Your task to perform on an android device: turn on notifications settings in the gmail app Image 0: 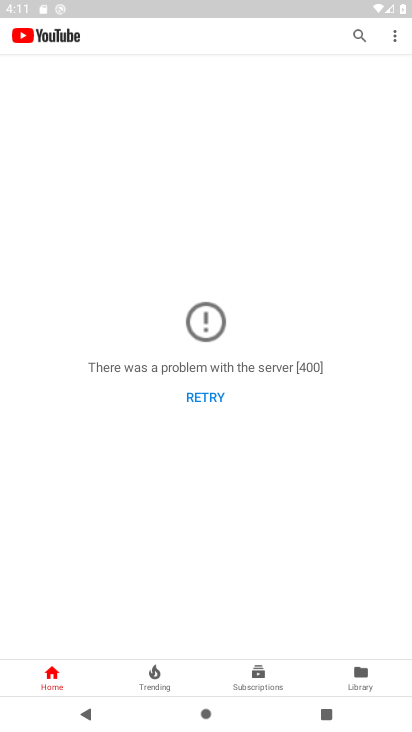
Step 0: drag from (204, 461) to (204, 244)
Your task to perform on an android device: turn on notifications settings in the gmail app Image 1: 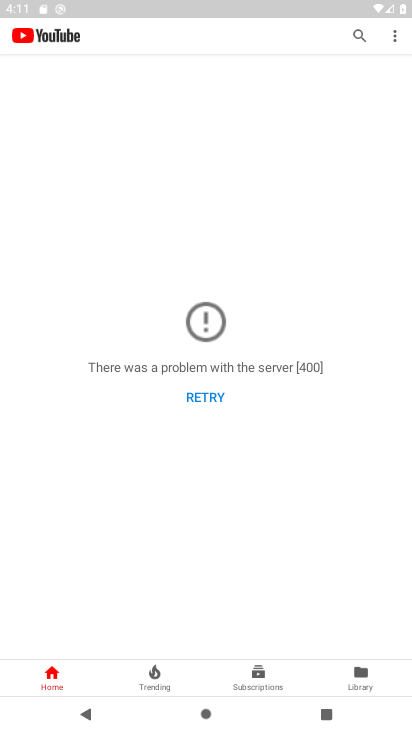
Step 1: press back button
Your task to perform on an android device: turn on notifications settings in the gmail app Image 2: 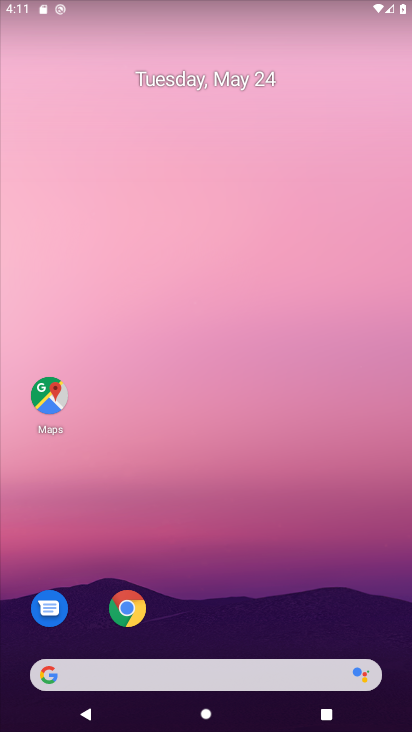
Step 2: click (219, 376)
Your task to perform on an android device: turn on notifications settings in the gmail app Image 3: 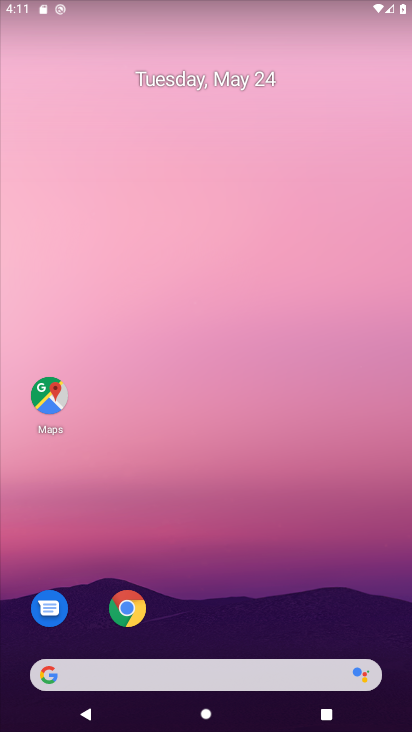
Step 3: click (162, 247)
Your task to perform on an android device: turn on notifications settings in the gmail app Image 4: 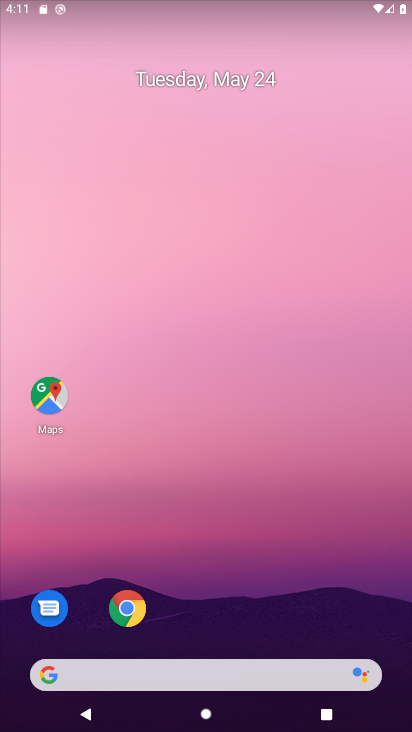
Step 4: click (201, 111)
Your task to perform on an android device: turn on notifications settings in the gmail app Image 5: 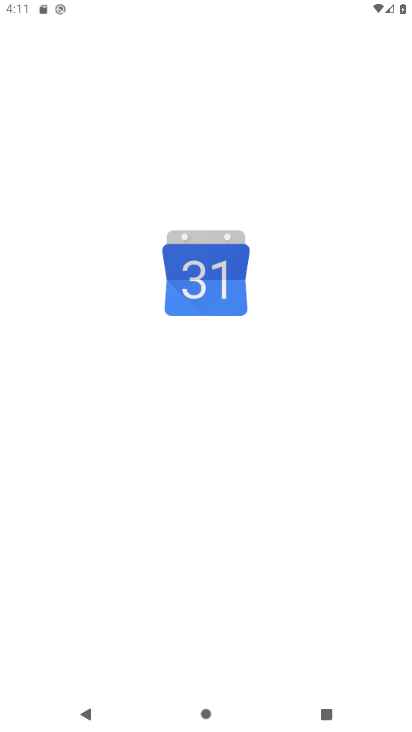
Step 5: drag from (229, 657) to (221, 97)
Your task to perform on an android device: turn on notifications settings in the gmail app Image 6: 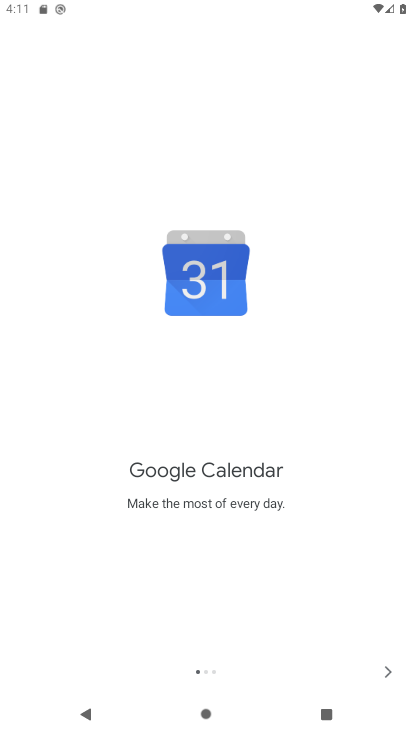
Step 6: press home button
Your task to perform on an android device: turn on notifications settings in the gmail app Image 7: 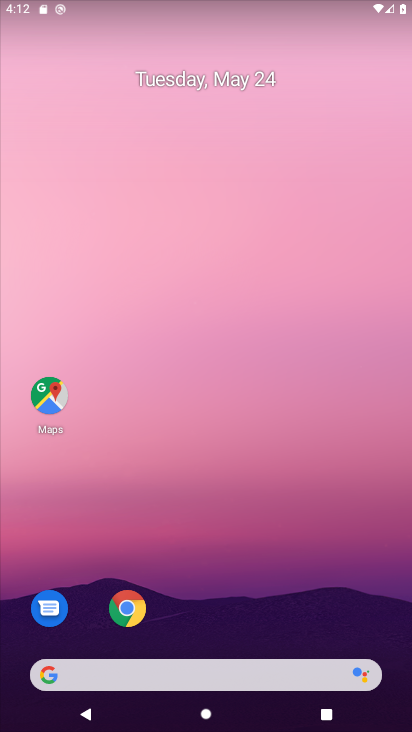
Step 7: drag from (279, 655) to (174, 71)
Your task to perform on an android device: turn on notifications settings in the gmail app Image 8: 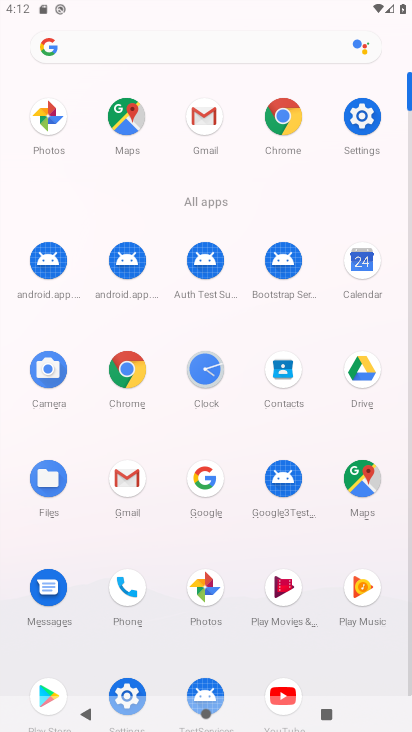
Step 8: click (193, 116)
Your task to perform on an android device: turn on notifications settings in the gmail app Image 9: 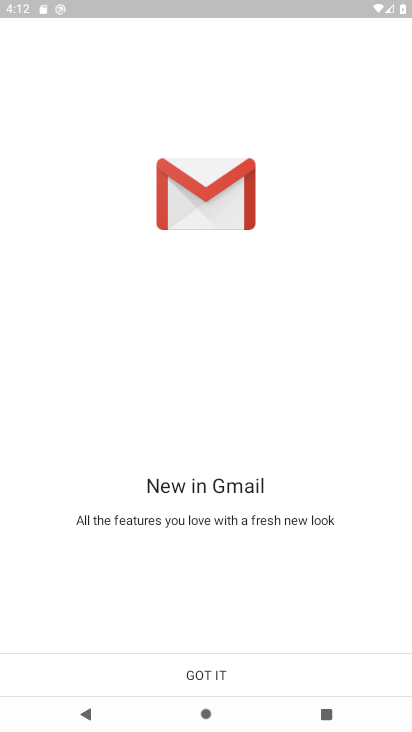
Step 9: click (203, 678)
Your task to perform on an android device: turn on notifications settings in the gmail app Image 10: 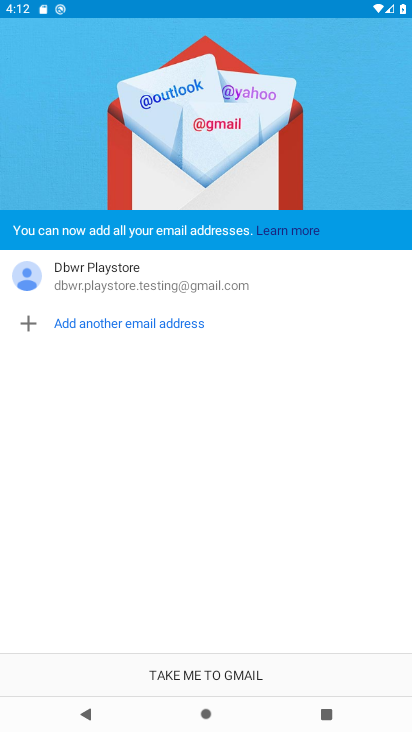
Step 10: click (220, 676)
Your task to perform on an android device: turn on notifications settings in the gmail app Image 11: 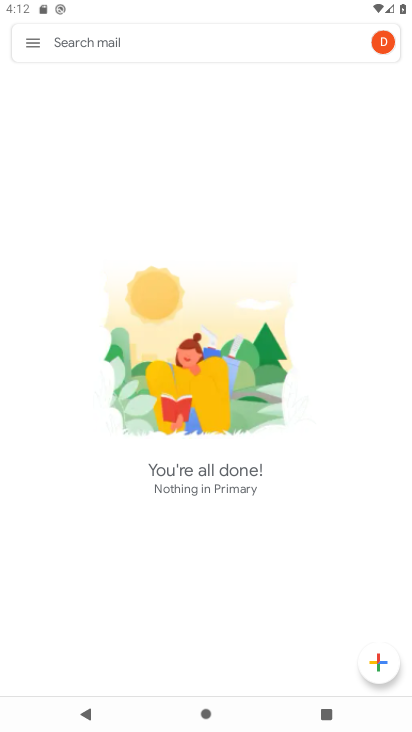
Step 11: click (28, 47)
Your task to perform on an android device: turn on notifications settings in the gmail app Image 12: 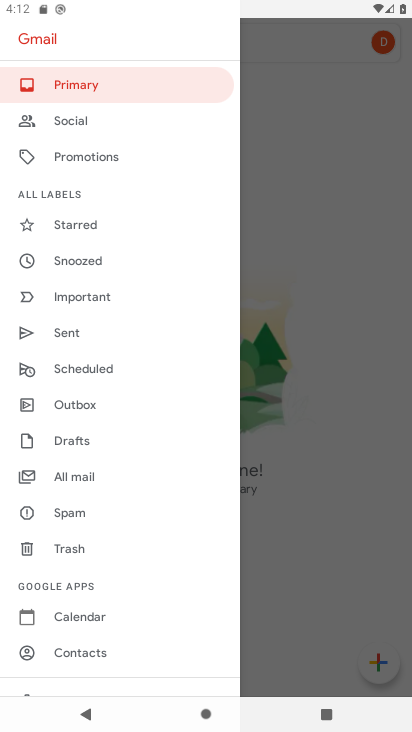
Step 12: drag from (108, 666) to (92, 310)
Your task to perform on an android device: turn on notifications settings in the gmail app Image 13: 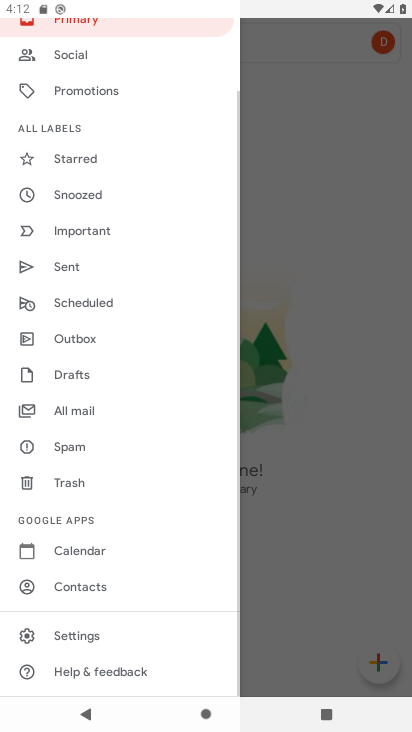
Step 13: click (79, 636)
Your task to perform on an android device: turn on notifications settings in the gmail app Image 14: 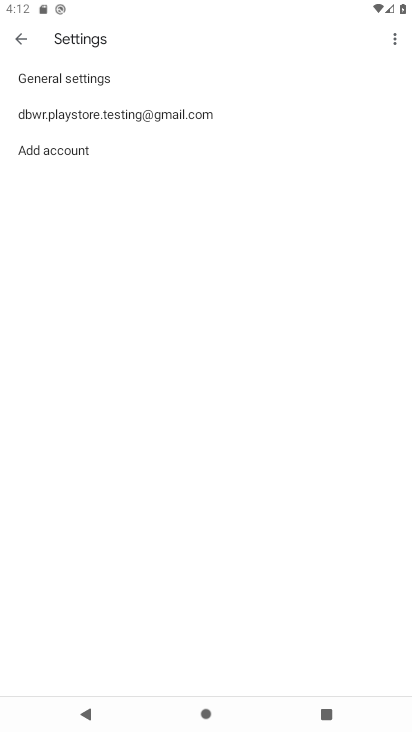
Step 14: click (57, 76)
Your task to perform on an android device: turn on notifications settings in the gmail app Image 15: 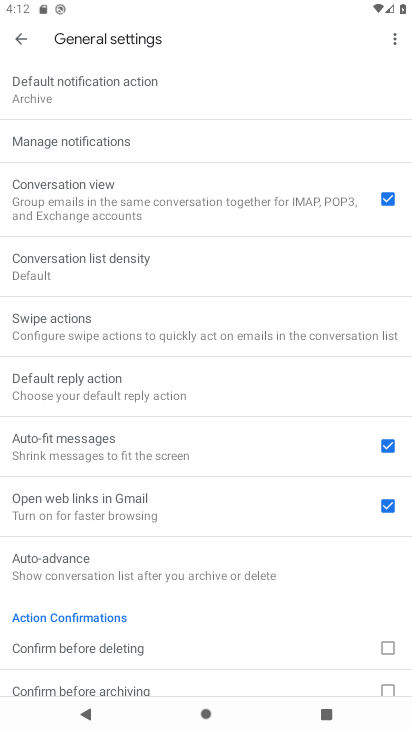
Step 15: click (69, 145)
Your task to perform on an android device: turn on notifications settings in the gmail app Image 16: 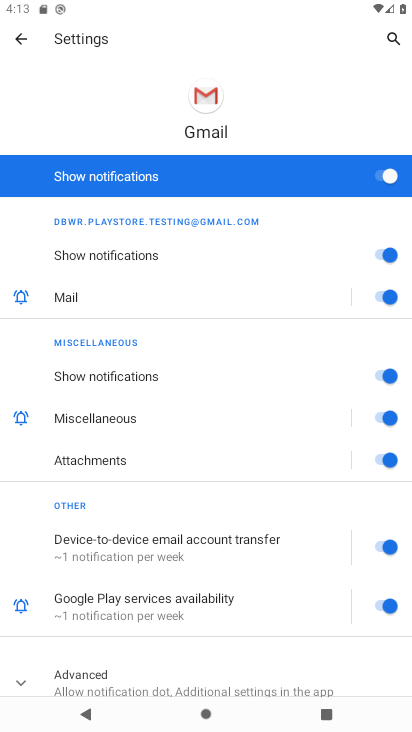
Step 16: task complete